Your task to perform on an android device: toggle translation in the chrome app Image 0: 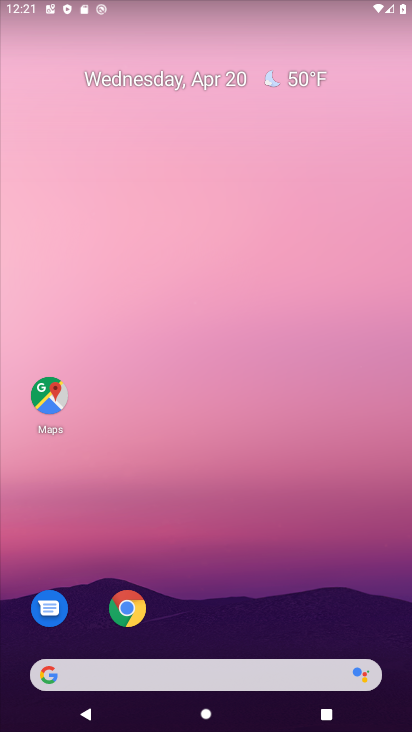
Step 0: click (133, 614)
Your task to perform on an android device: toggle translation in the chrome app Image 1: 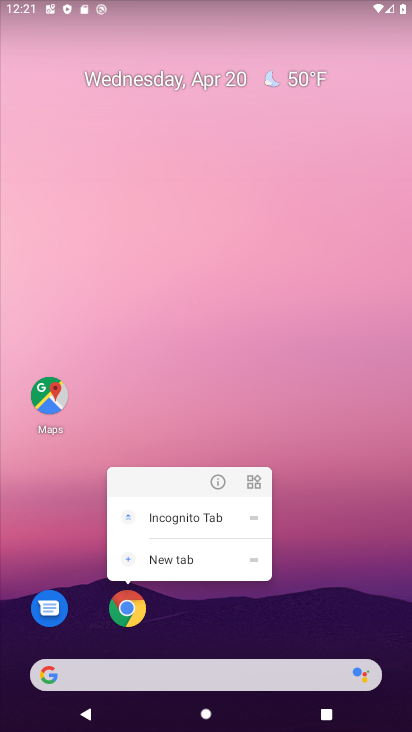
Step 1: click (129, 614)
Your task to perform on an android device: toggle translation in the chrome app Image 2: 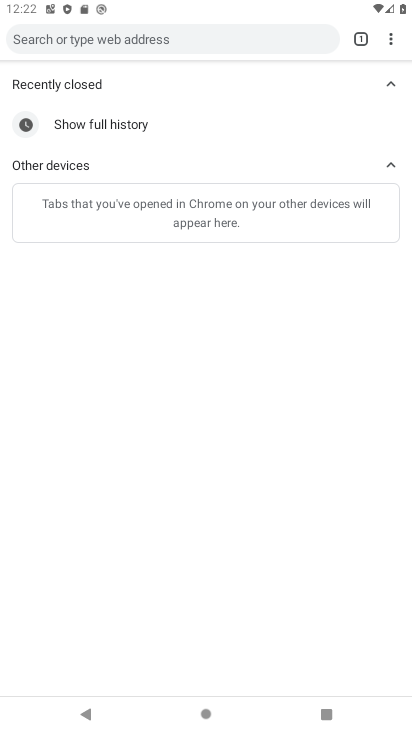
Step 2: click (389, 39)
Your task to perform on an android device: toggle translation in the chrome app Image 3: 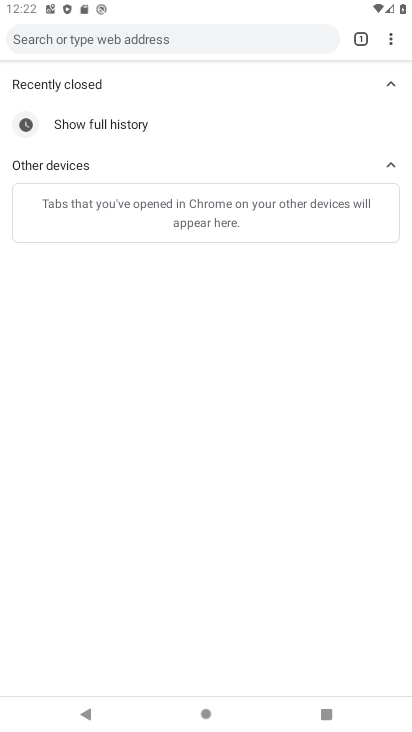
Step 3: click (387, 45)
Your task to perform on an android device: toggle translation in the chrome app Image 4: 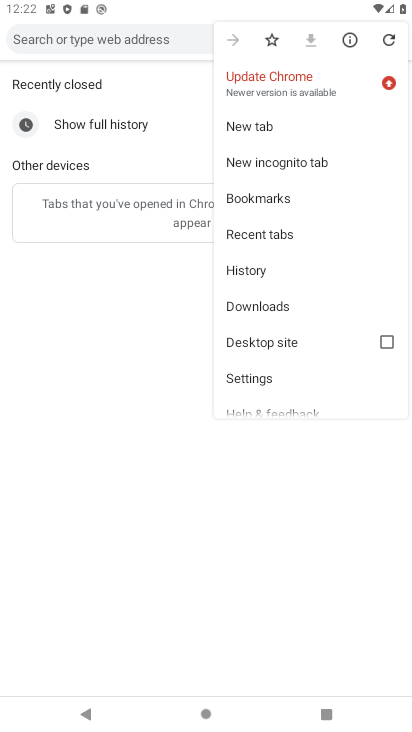
Step 4: click (249, 380)
Your task to perform on an android device: toggle translation in the chrome app Image 5: 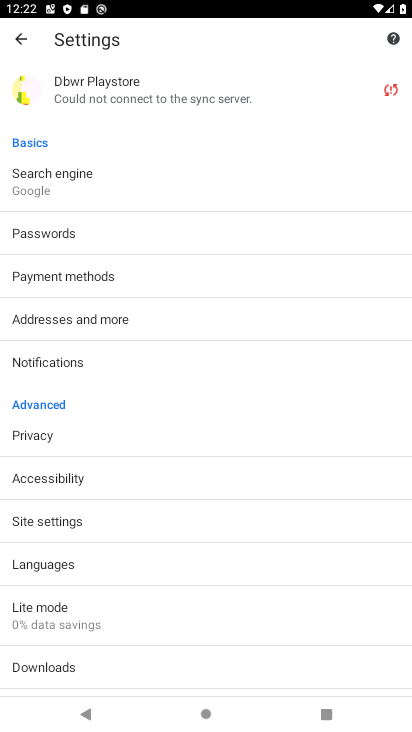
Step 5: drag from (87, 564) to (68, 115)
Your task to perform on an android device: toggle translation in the chrome app Image 6: 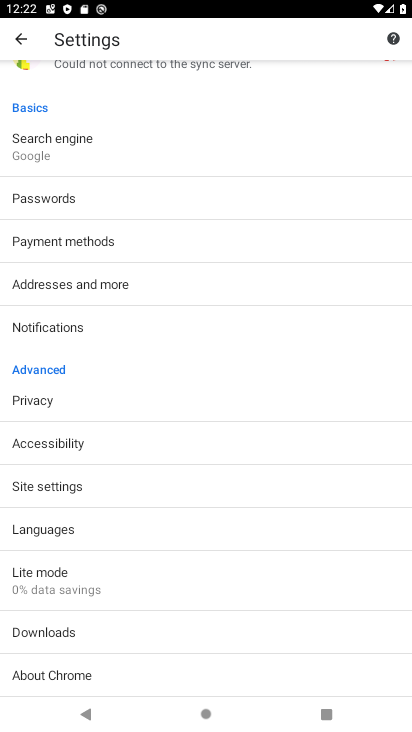
Step 6: click (17, 528)
Your task to perform on an android device: toggle translation in the chrome app Image 7: 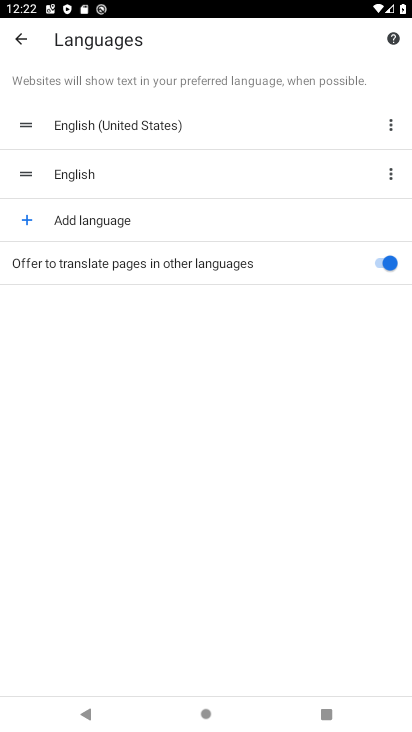
Step 7: click (374, 258)
Your task to perform on an android device: toggle translation in the chrome app Image 8: 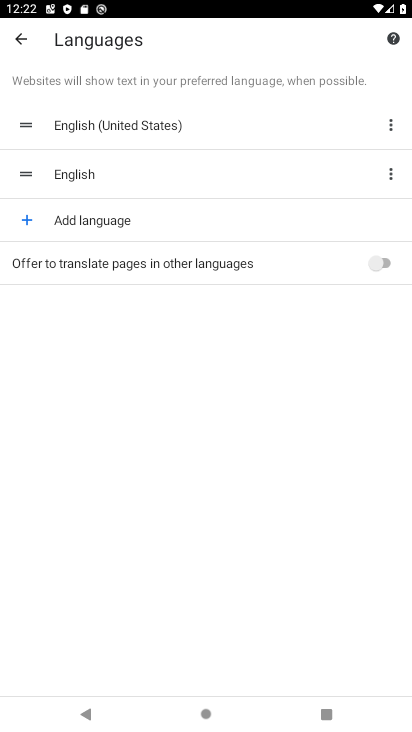
Step 8: task complete